Your task to perform on an android device: Go to sound settings Image 0: 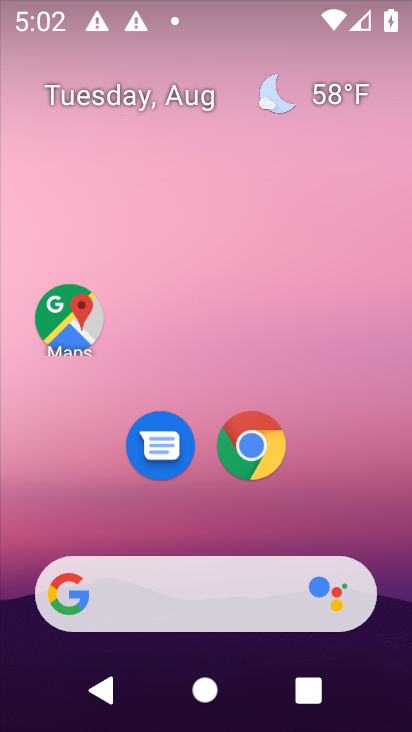
Step 0: drag from (201, 446) to (189, 40)
Your task to perform on an android device: Go to sound settings Image 1: 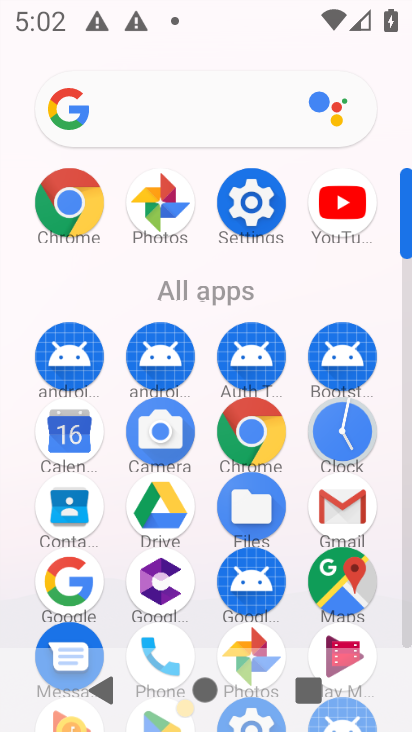
Step 1: click (253, 200)
Your task to perform on an android device: Go to sound settings Image 2: 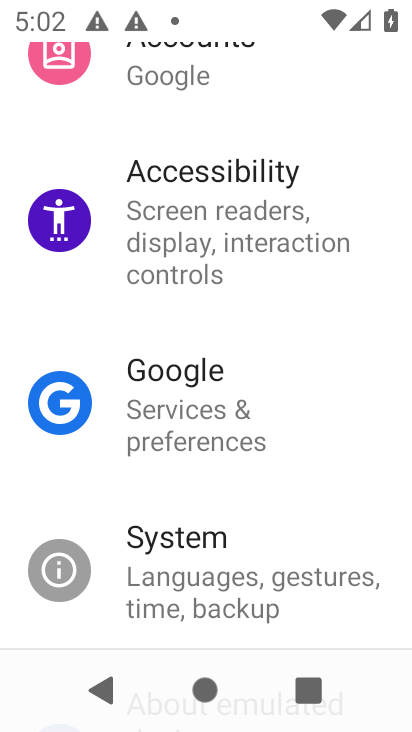
Step 2: drag from (238, 183) to (195, 571)
Your task to perform on an android device: Go to sound settings Image 3: 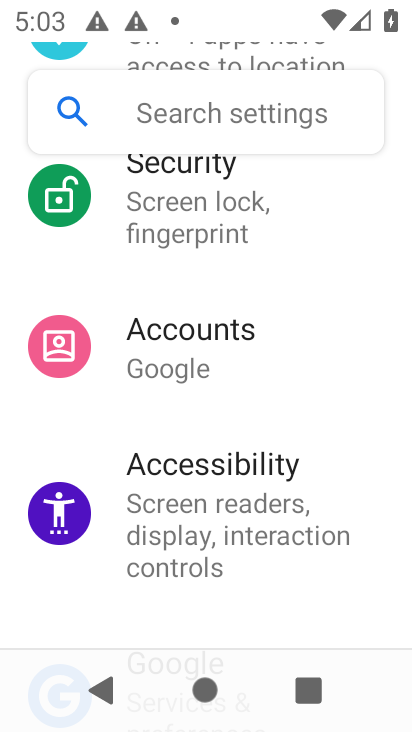
Step 3: drag from (250, 304) to (217, 633)
Your task to perform on an android device: Go to sound settings Image 4: 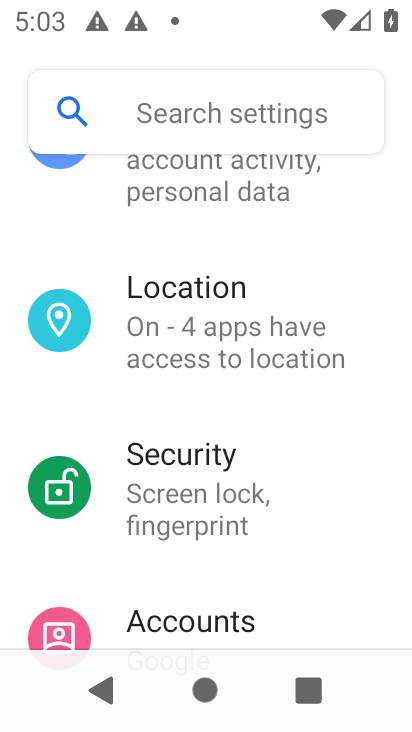
Step 4: drag from (251, 507) to (161, 643)
Your task to perform on an android device: Go to sound settings Image 5: 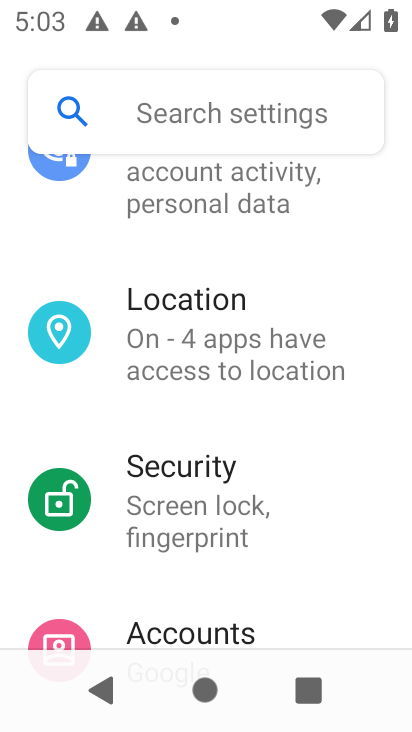
Step 5: drag from (280, 274) to (210, 585)
Your task to perform on an android device: Go to sound settings Image 6: 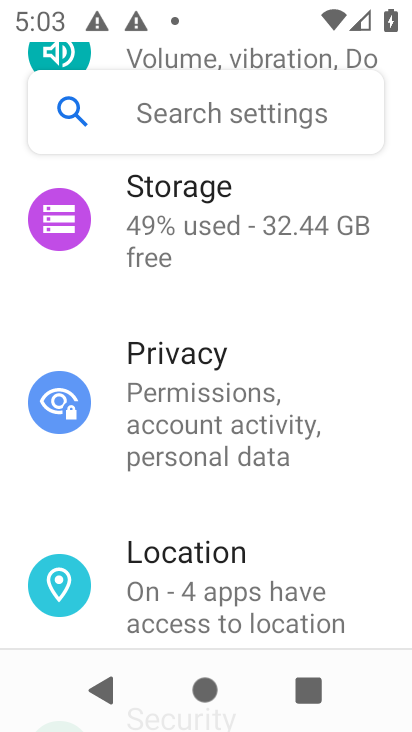
Step 6: drag from (273, 183) to (224, 628)
Your task to perform on an android device: Go to sound settings Image 7: 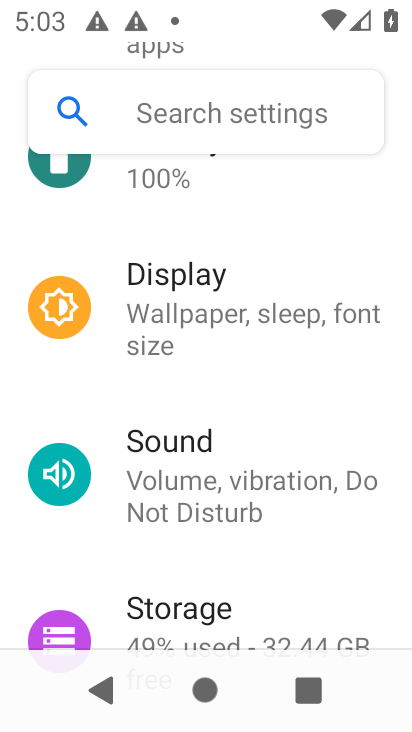
Step 7: click (171, 464)
Your task to perform on an android device: Go to sound settings Image 8: 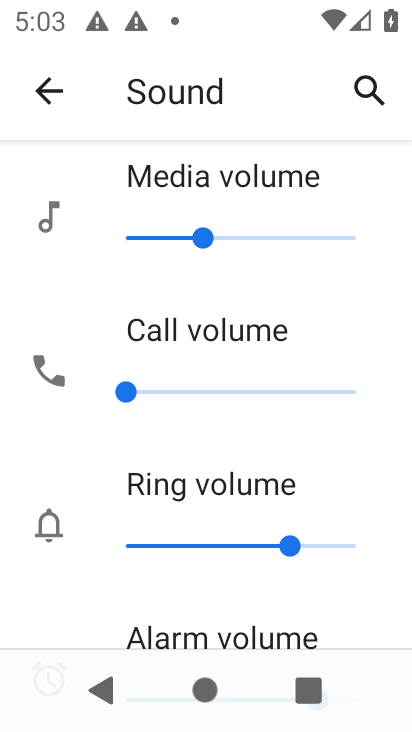
Step 8: task complete